Your task to perform on an android device: Search for Mexican restaurants on Maps Image 0: 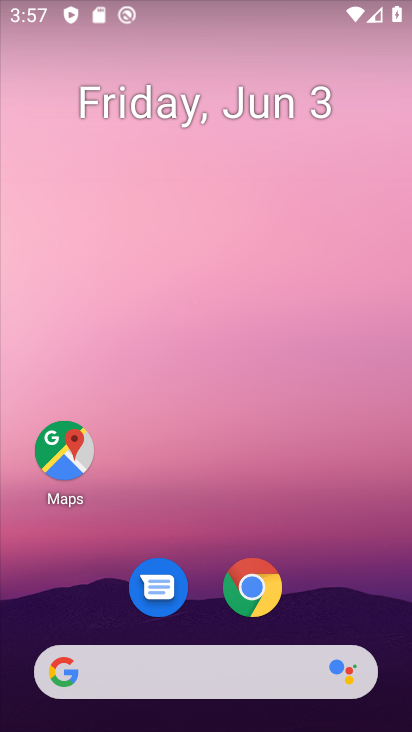
Step 0: click (72, 437)
Your task to perform on an android device: Search for Mexican restaurants on Maps Image 1: 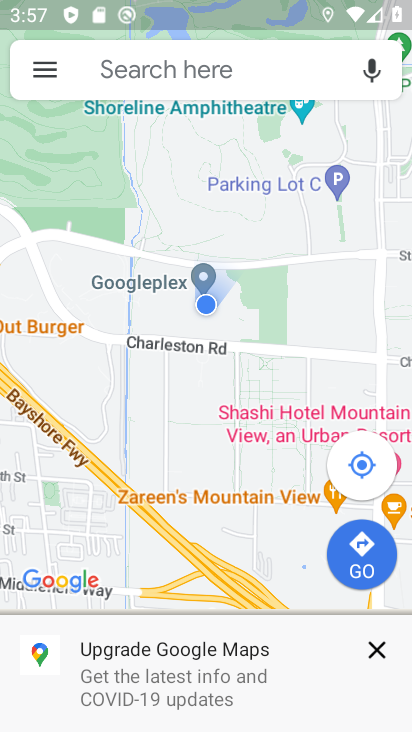
Step 1: click (292, 50)
Your task to perform on an android device: Search for Mexican restaurants on Maps Image 2: 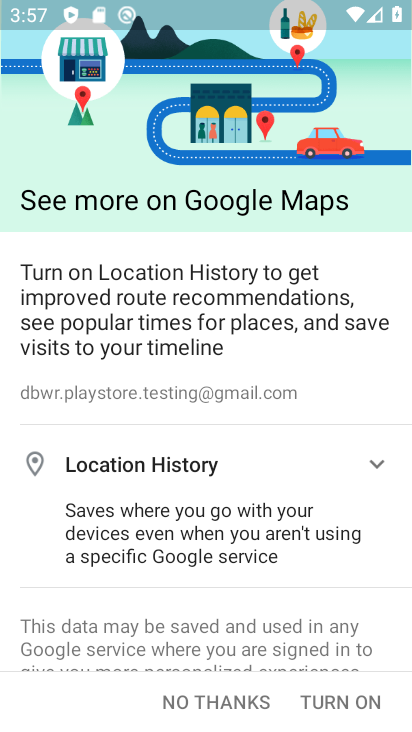
Step 2: click (323, 708)
Your task to perform on an android device: Search for Mexican restaurants on Maps Image 3: 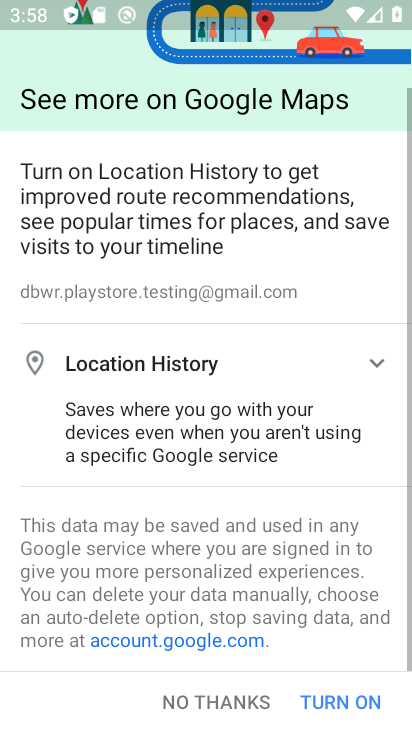
Step 3: click (323, 708)
Your task to perform on an android device: Search for Mexican restaurants on Maps Image 4: 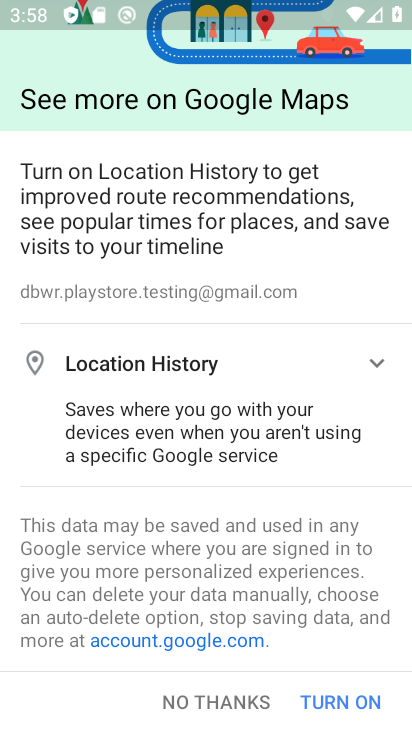
Step 4: click (323, 708)
Your task to perform on an android device: Search for Mexican restaurants on Maps Image 5: 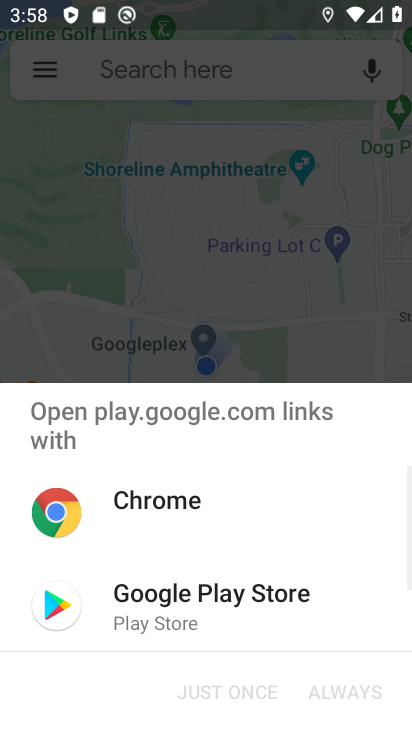
Step 5: click (358, 83)
Your task to perform on an android device: Search for Mexican restaurants on Maps Image 6: 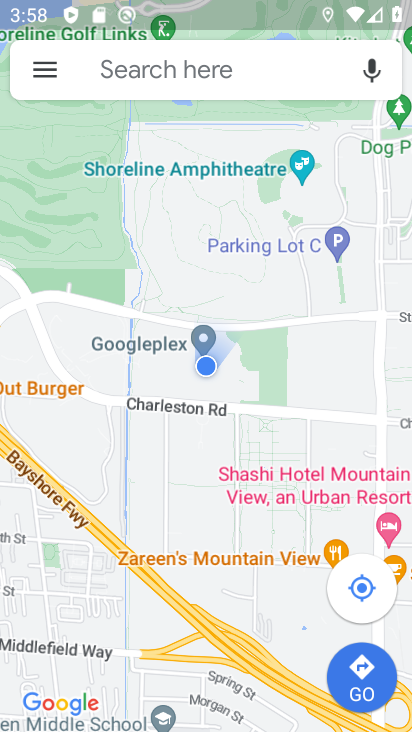
Step 6: click (331, 45)
Your task to perform on an android device: Search for Mexican restaurants on Maps Image 7: 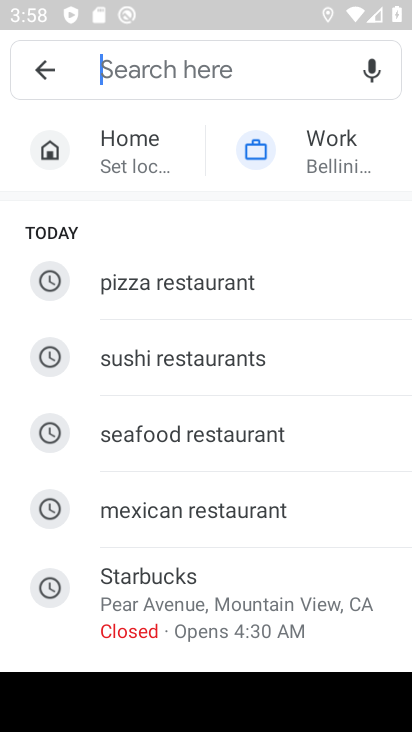
Step 7: click (154, 498)
Your task to perform on an android device: Search for Mexican restaurants on Maps Image 8: 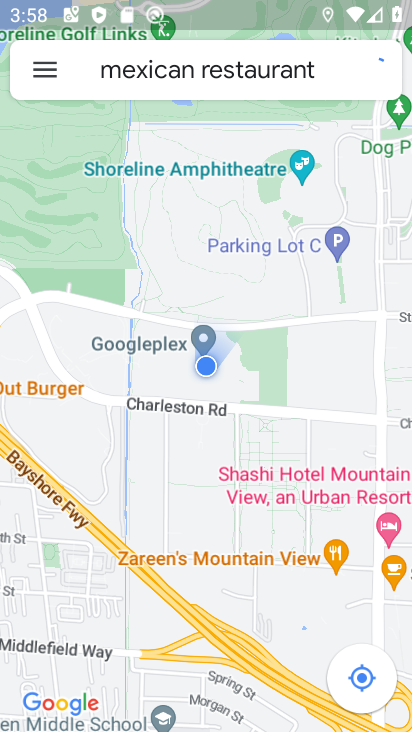
Step 8: task complete